Your task to perform on an android device: check out phone information Image 0: 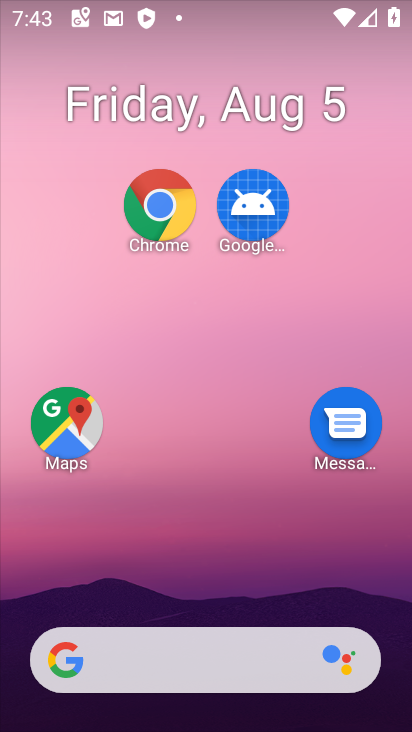
Step 0: drag from (145, 607) to (117, 8)
Your task to perform on an android device: check out phone information Image 1: 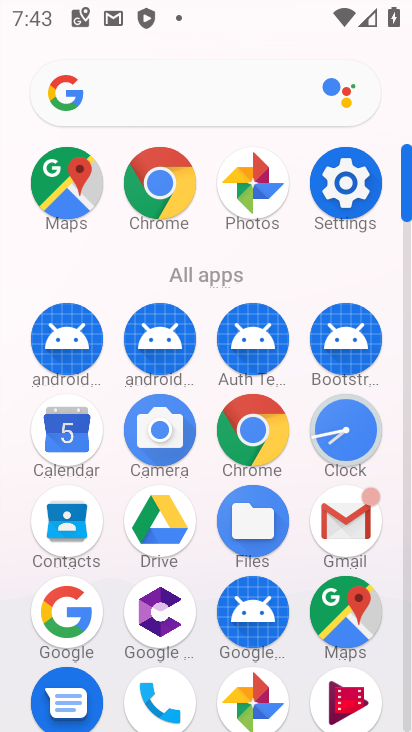
Step 1: click (329, 181)
Your task to perform on an android device: check out phone information Image 2: 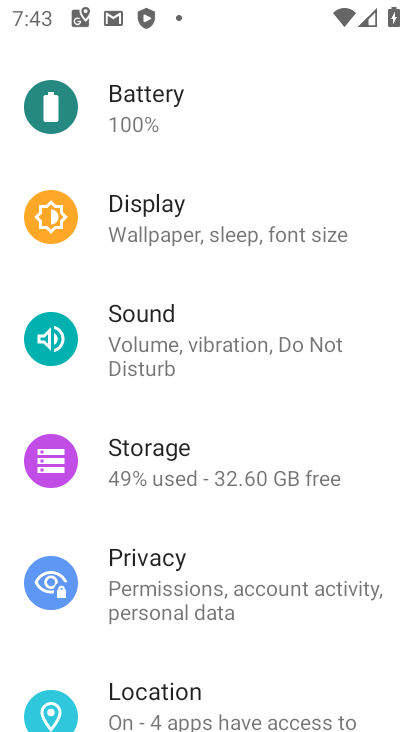
Step 2: task complete